Your task to perform on an android device: What is the news today? Image 0: 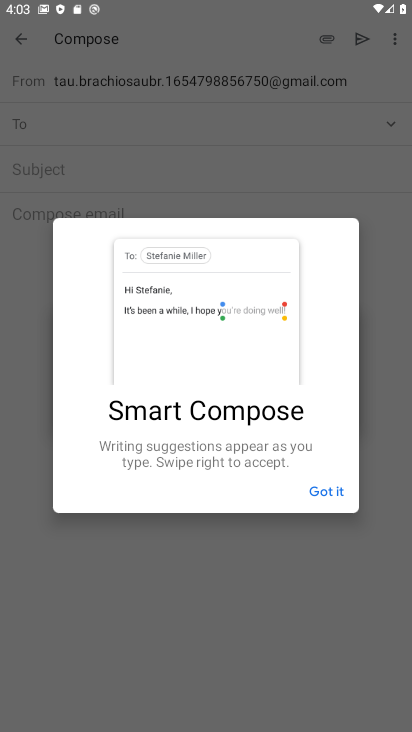
Step 0: press home button
Your task to perform on an android device: What is the news today? Image 1: 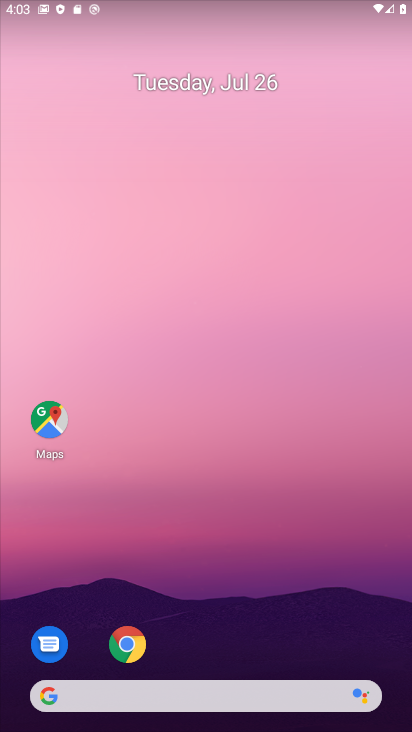
Step 1: task complete